Your task to perform on an android device: Open display settings Image 0: 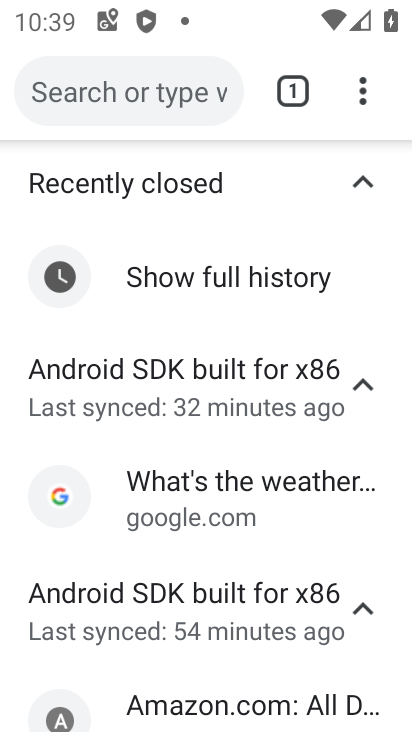
Step 0: press home button
Your task to perform on an android device: Open display settings Image 1: 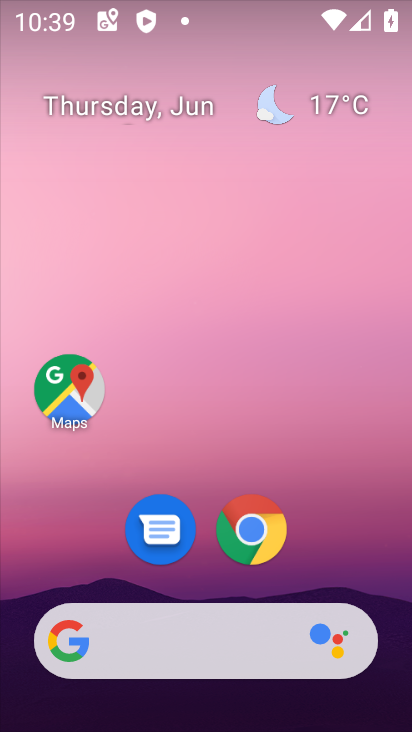
Step 1: drag from (330, 552) to (315, 148)
Your task to perform on an android device: Open display settings Image 2: 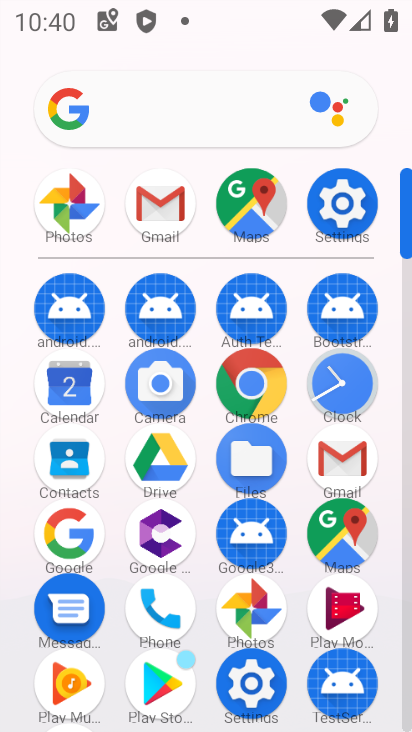
Step 2: click (337, 198)
Your task to perform on an android device: Open display settings Image 3: 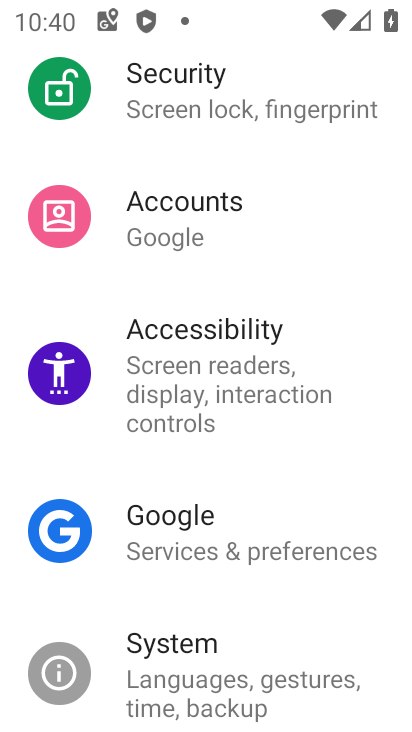
Step 3: drag from (251, 289) to (281, 619)
Your task to perform on an android device: Open display settings Image 4: 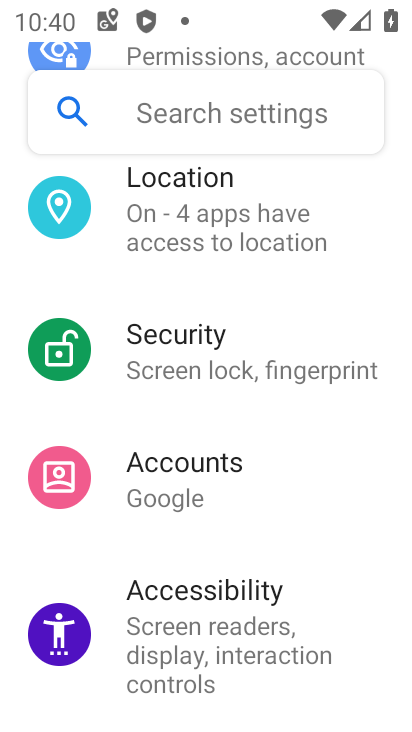
Step 4: drag from (308, 347) to (302, 582)
Your task to perform on an android device: Open display settings Image 5: 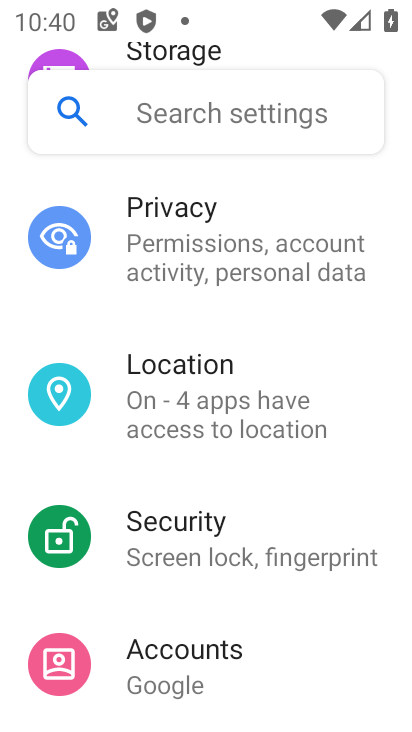
Step 5: drag from (208, 243) to (184, 549)
Your task to perform on an android device: Open display settings Image 6: 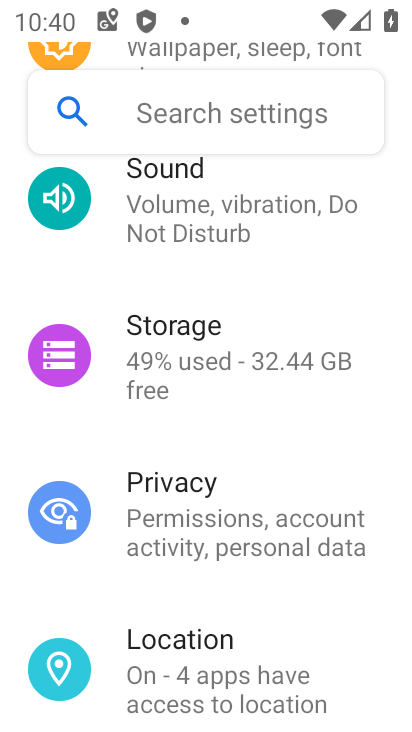
Step 6: drag from (161, 274) to (132, 628)
Your task to perform on an android device: Open display settings Image 7: 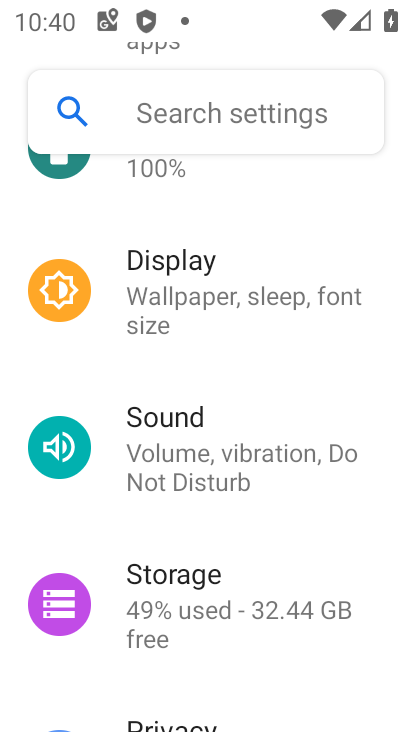
Step 7: click (214, 294)
Your task to perform on an android device: Open display settings Image 8: 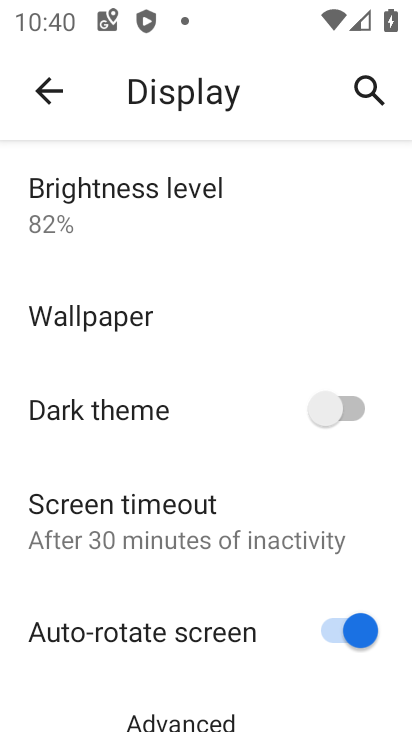
Step 8: task complete